Your task to perform on an android device: stop showing notifications on the lock screen Image 0: 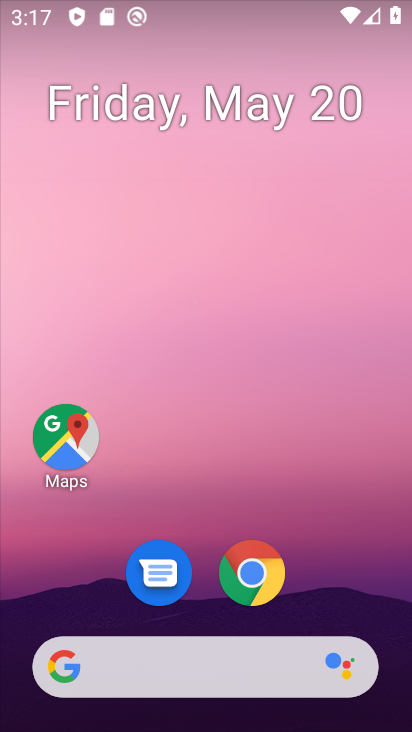
Step 0: drag from (357, 578) to (377, 150)
Your task to perform on an android device: stop showing notifications on the lock screen Image 1: 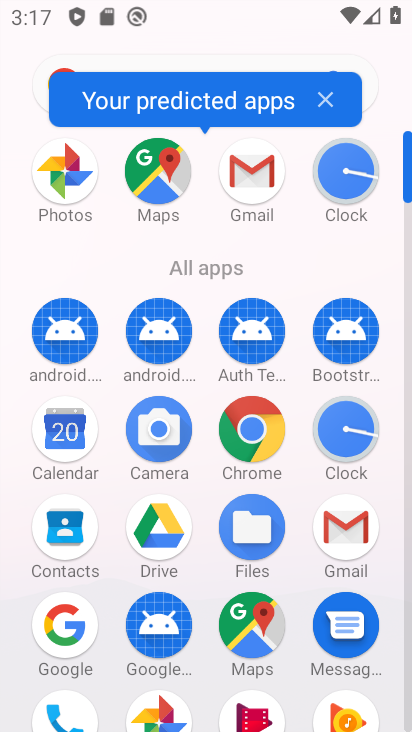
Step 1: drag from (285, 609) to (314, 303)
Your task to perform on an android device: stop showing notifications on the lock screen Image 2: 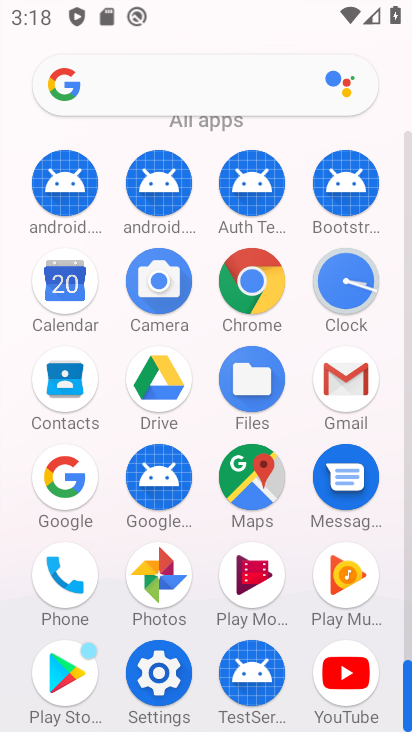
Step 2: click (171, 686)
Your task to perform on an android device: stop showing notifications on the lock screen Image 3: 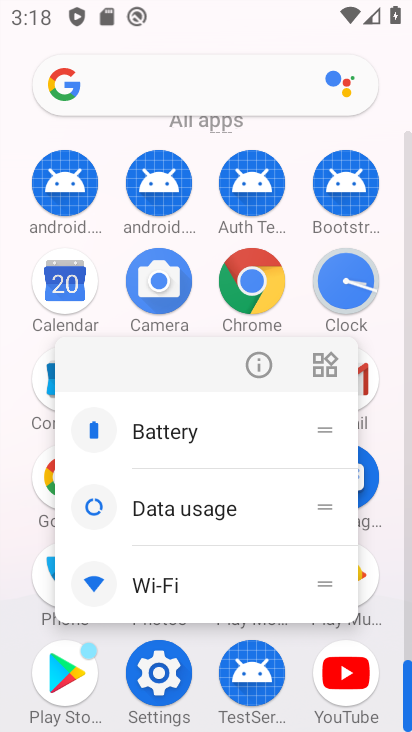
Step 3: click (171, 686)
Your task to perform on an android device: stop showing notifications on the lock screen Image 4: 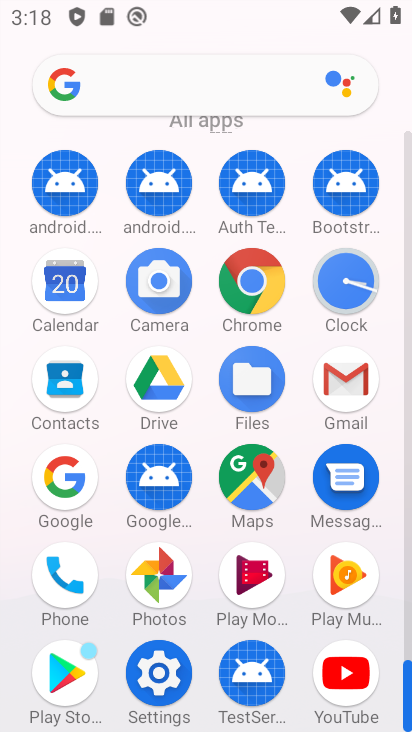
Step 4: click (168, 673)
Your task to perform on an android device: stop showing notifications on the lock screen Image 5: 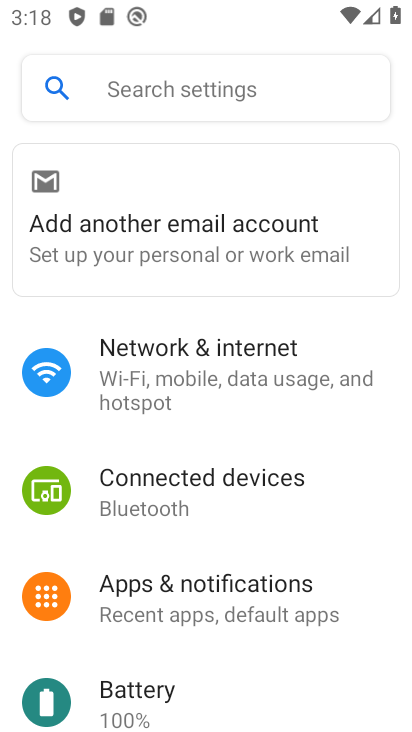
Step 5: drag from (230, 635) to (255, 228)
Your task to perform on an android device: stop showing notifications on the lock screen Image 6: 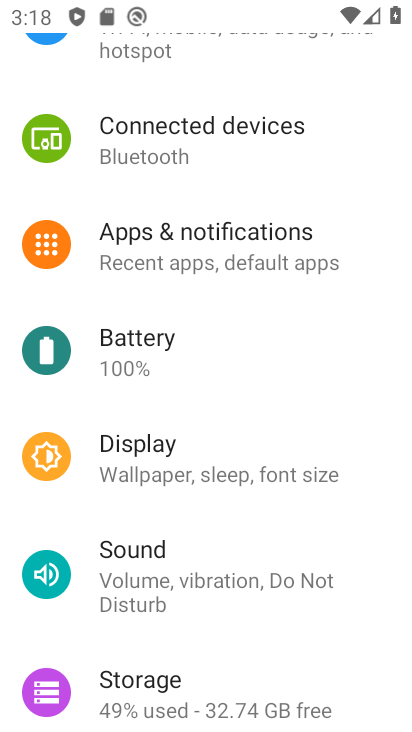
Step 6: drag from (244, 624) to (253, 287)
Your task to perform on an android device: stop showing notifications on the lock screen Image 7: 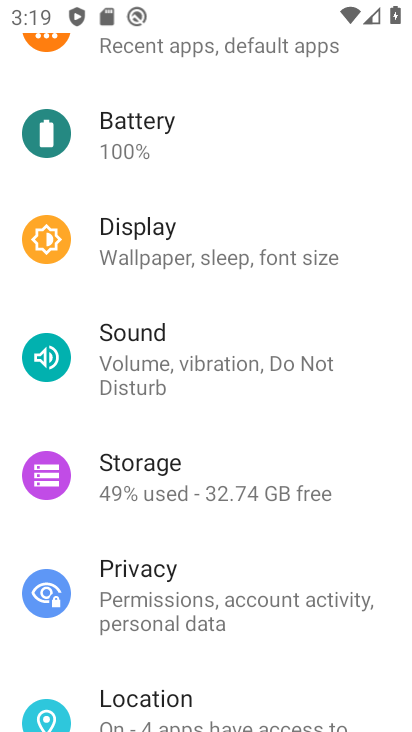
Step 7: drag from (247, 587) to (266, 326)
Your task to perform on an android device: stop showing notifications on the lock screen Image 8: 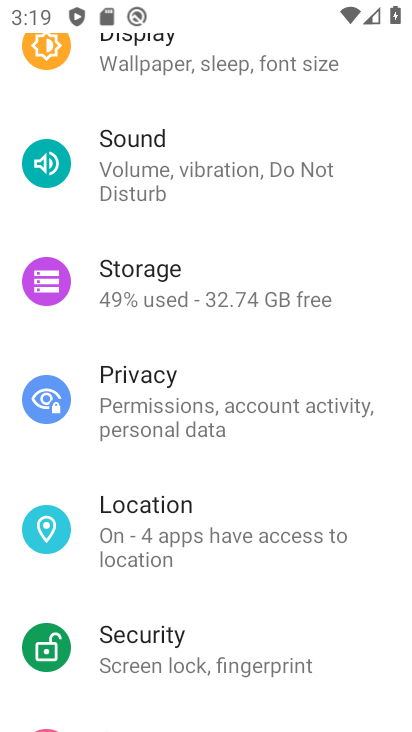
Step 8: drag from (256, 130) to (242, 672)
Your task to perform on an android device: stop showing notifications on the lock screen Image 9: 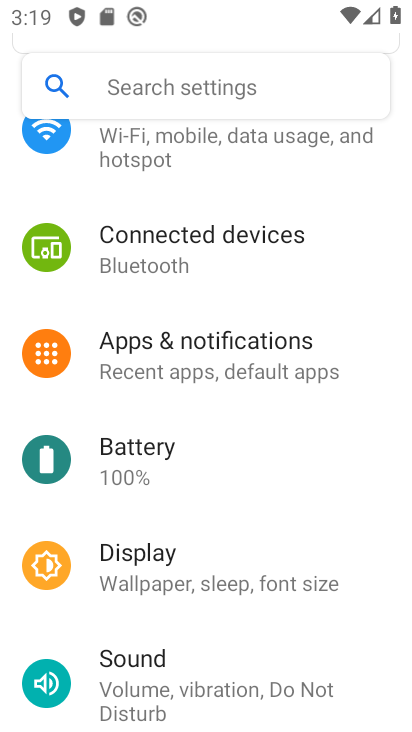
Step 9: click (213, 353)
Your task to perform on an android device: stop showing notifications on the lock screen Image 10: 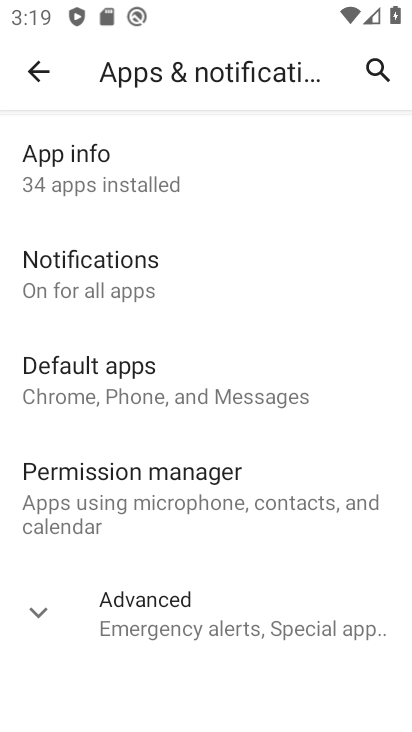
Step 10: click (96, 264)
Your task to perform on an android device: stop showing notifications on the lock screen Image 11: 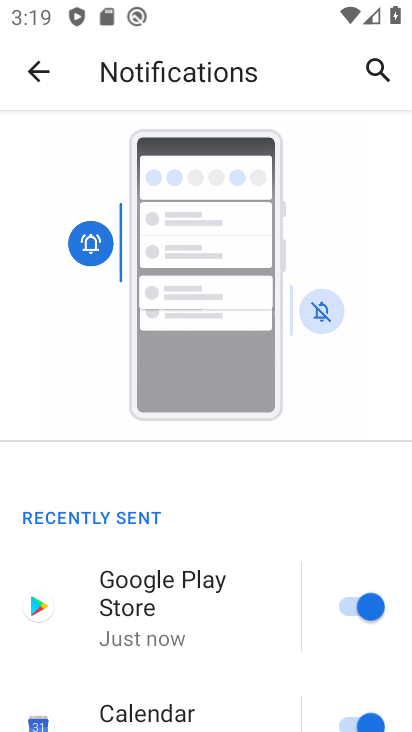
Step 11: drag from (239, 637) to (283, 207)
Your task to perform on an android device: stop showing notifications on the lock screen Image 12: 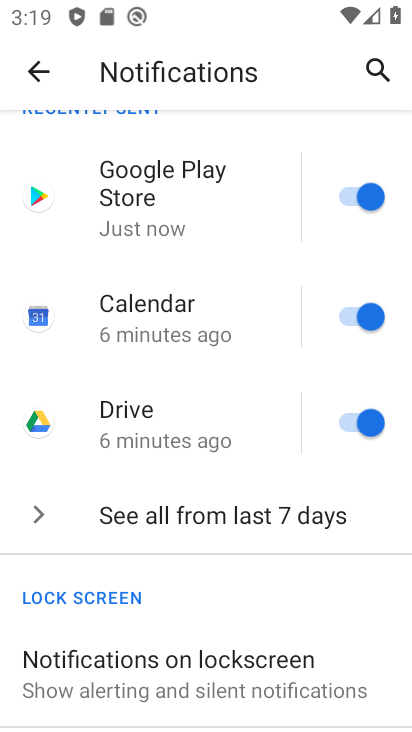
Step 12: drag from (249, 302) to (249, 226)
Your task to perform on an android device: stop showing notifications on the lock screen Image 13: 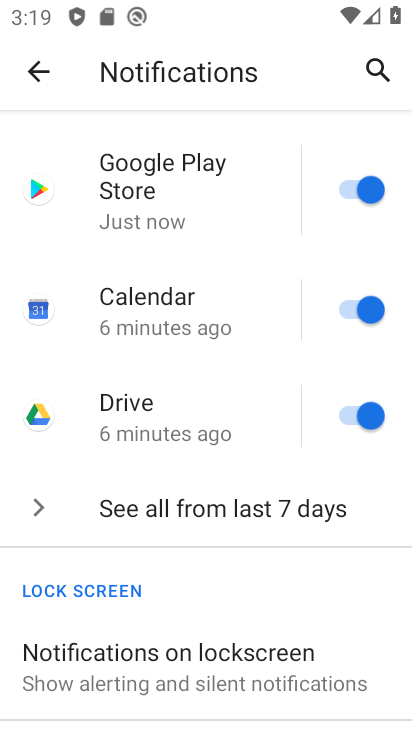
Step 13: click (133, 650)
Your task to perform on an android device: stop showing notifications on the lock screen Image 14: 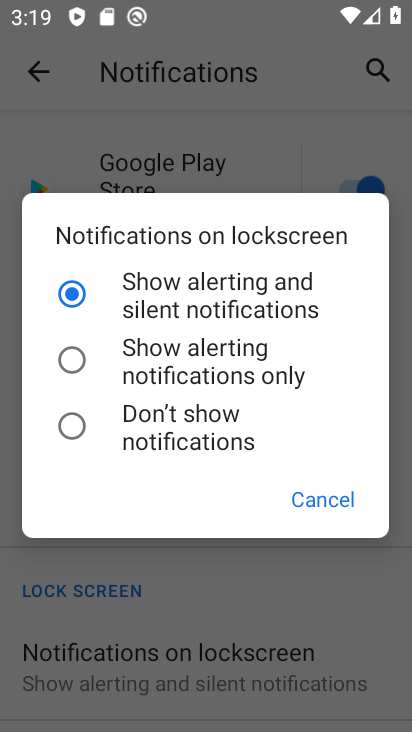
Step 14: click (77, 422)
Your task to perform on an android device: stop showing notifications on the lock screen Image 15: 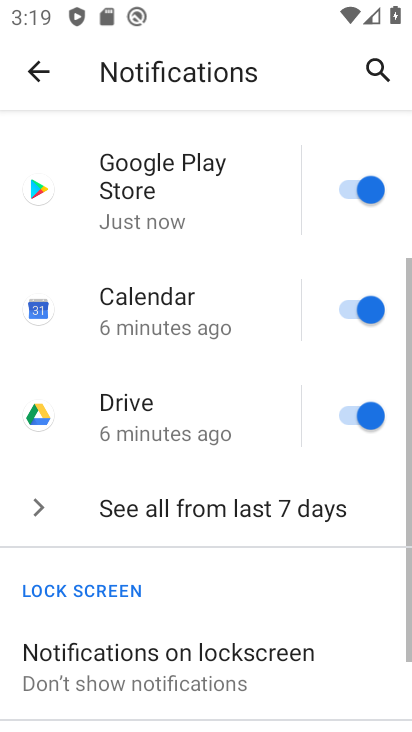
Step 15: task complete